Your task to perform on an android device: Go to Google maps Image 0: 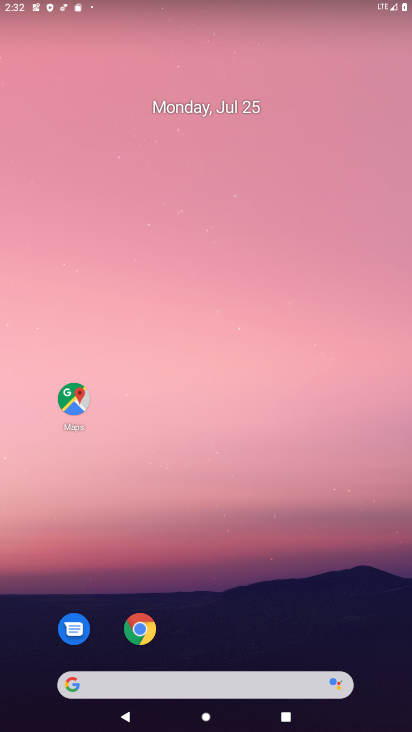
Step 0: drag from (198, 639) to (203, 130)
Your task to perform on an android device: Go to Google maps Image 1: 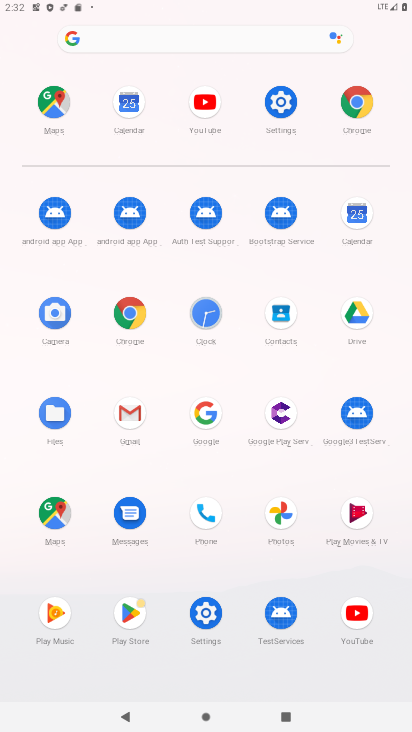
Step 1: click (39, 503)
Your task to perform on an android device: Go to Google maps Image 2: 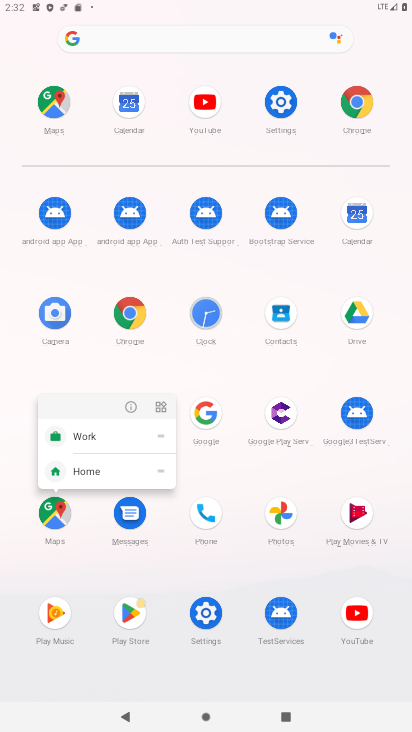
Step 2: click (38, 502)
Your task to perform on an android device: Go to Google maps Image 3: 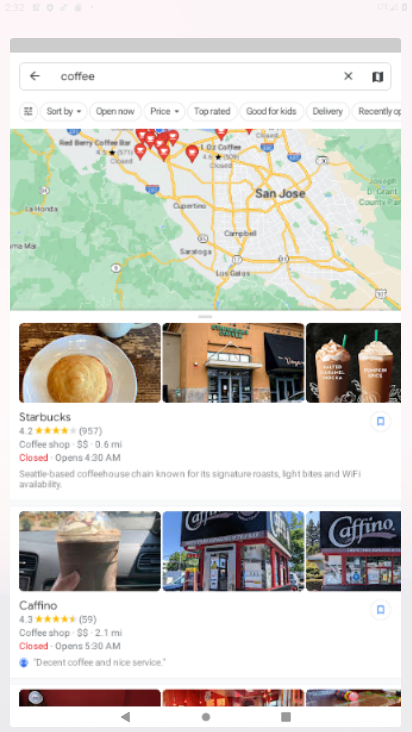
Step 3: task complete